Your task to perform on an android device: check battery use Image 0: 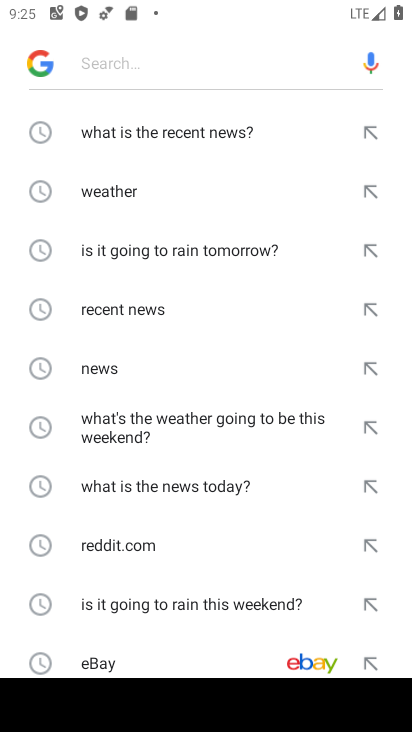
Step 0: press home button
Your task to perform on an android device: check battery use Image 1: 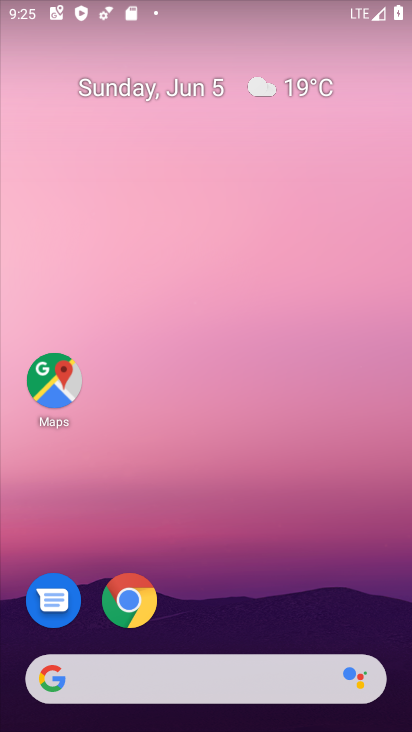
Step 1: drag from (217, 615) to (180, 114)
Your task to perform on an android device: check battery use Image 2: 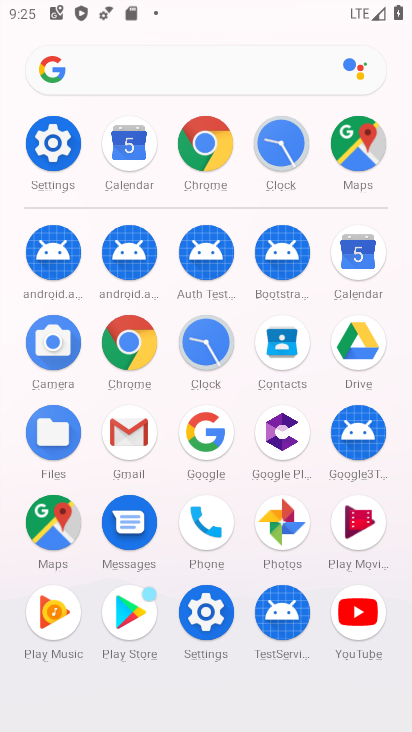
Step 2: click (56, 135)
Your task to perform on an android device: check battery use Image 3: 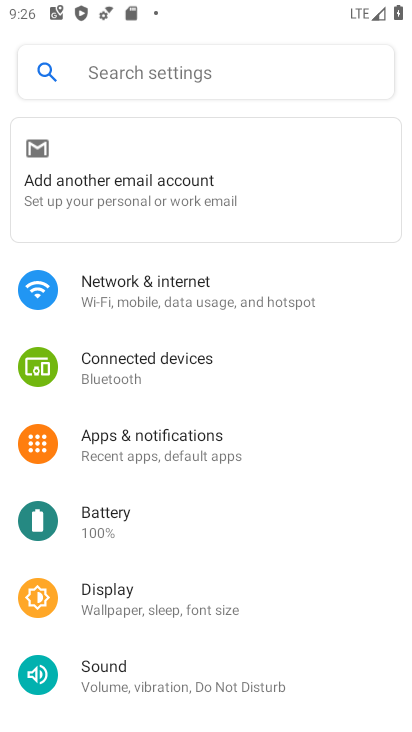
Step 3: click (190, 500)
Your task to perform on an android device: check battery use Image 4: 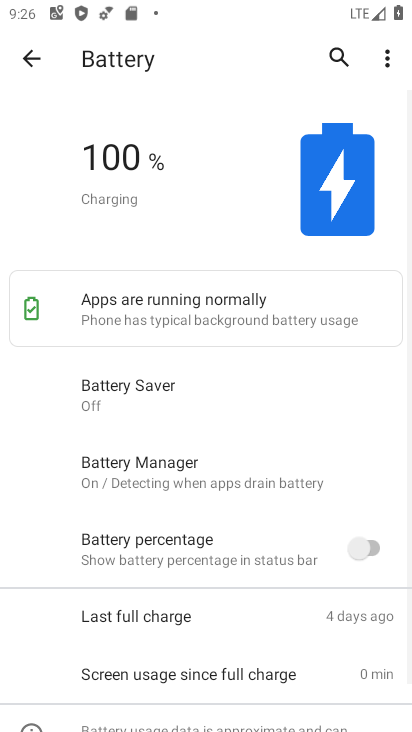
Step 4: click (390, 71)
Your task to perform on an android device: check battery use Image 5: 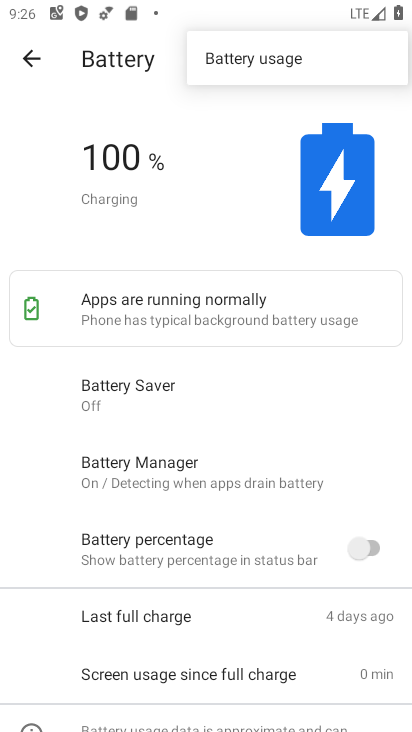
Step 5: click (349, 65)
Your task to perform on an android device: check battery use Image 6: 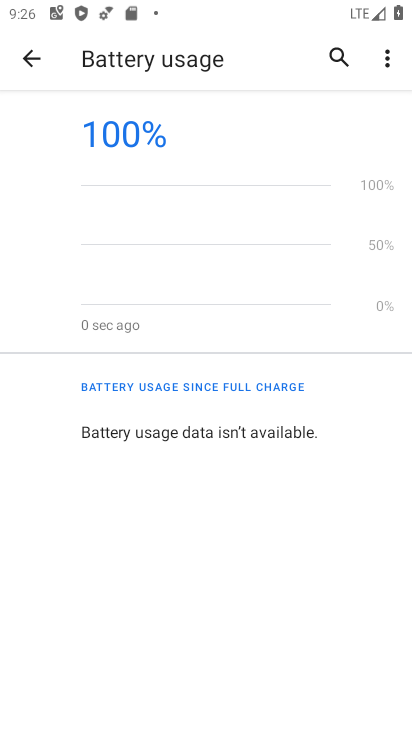
Step 6: task complete